Your task to perform on an android device: open sync settings in chrome Image 0: 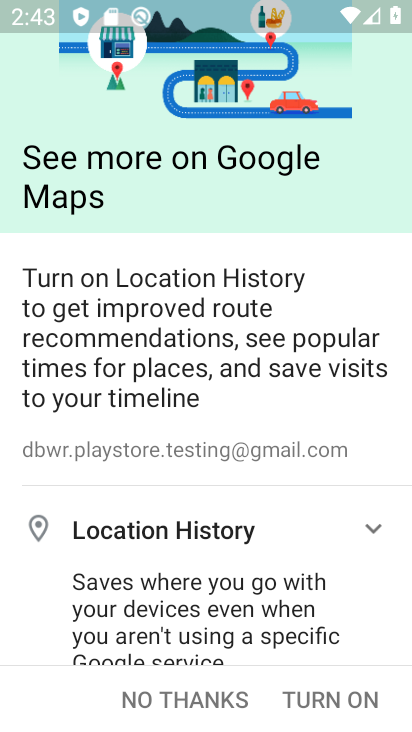
Step 0: press home button
Your task to perform on an android device: open sync settings in chrome Image 1: 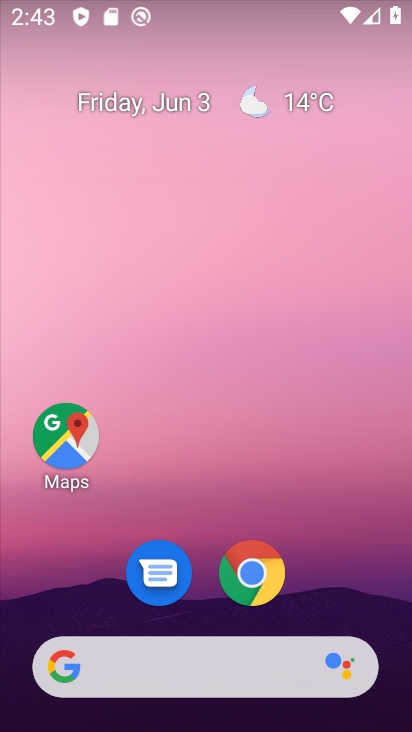
Step 1: drag from (214, 614) to (265, 85)
Your task to perform on an android device: open sync settings in chrome Image 2: 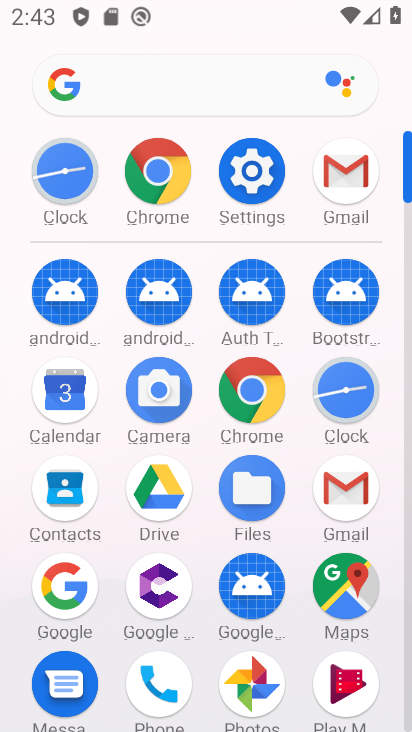
Step 2: click (243, 398)
Your task to perform on an android device: open sync settings in chrome Image 3: 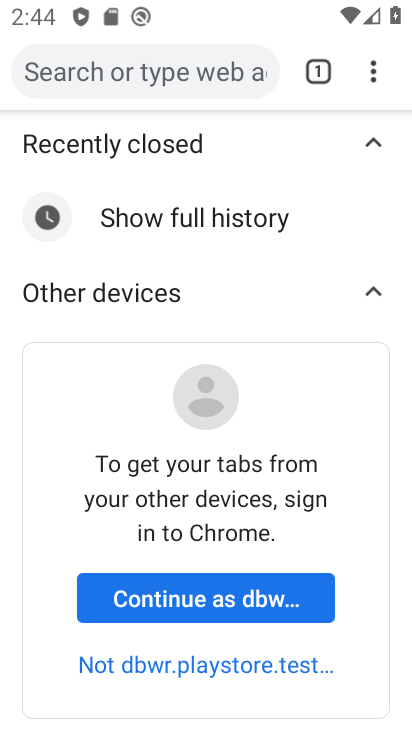
Step 3: drag from (377, 64) to (157, 608)
Your task to perform on an android device: open sync settings in chrome Image 4: 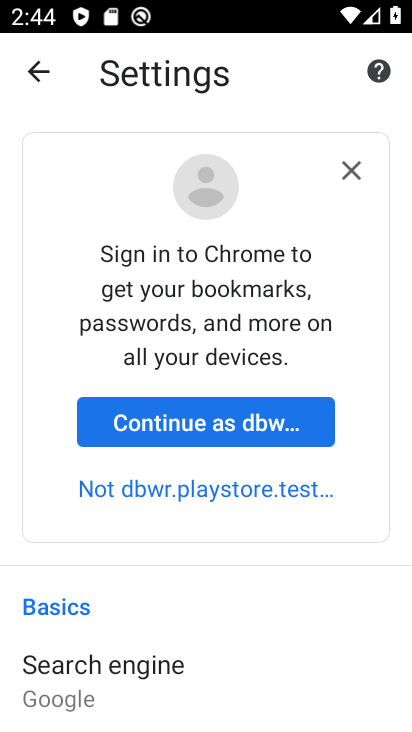
Step 4: drag from (265, 656) to (315, 93)
Your task to perform on an android device: open sync settings in chrome Image 5: 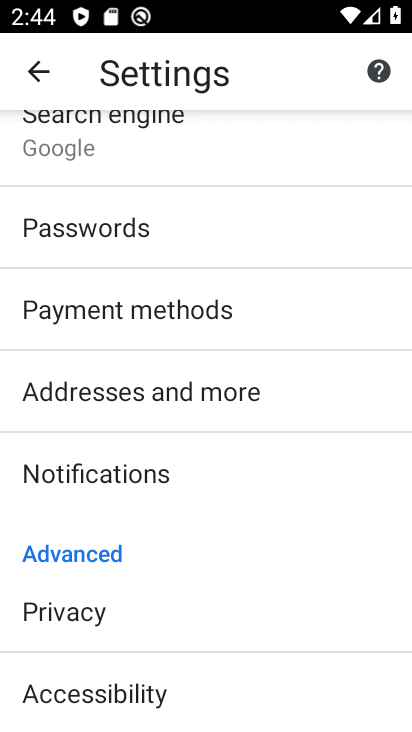
Step 5: drag from (230, 594) to (279, 176)
Your task to perform on an android device: open sync settings in chrome Image 6: 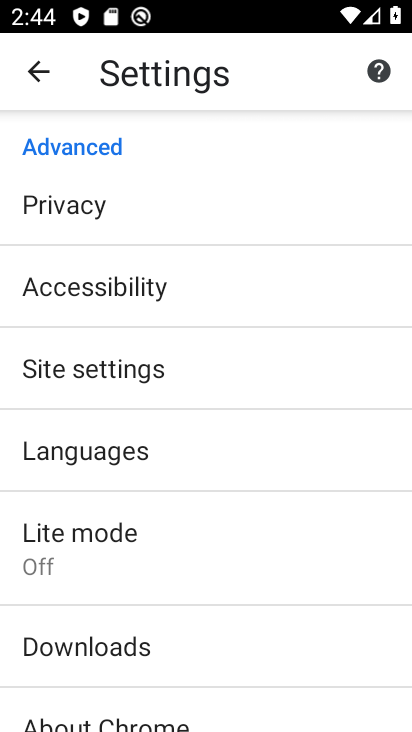
Step 6: click (147, 385)
Your task to perform on an android device: open sync settings in chrome Image 7: 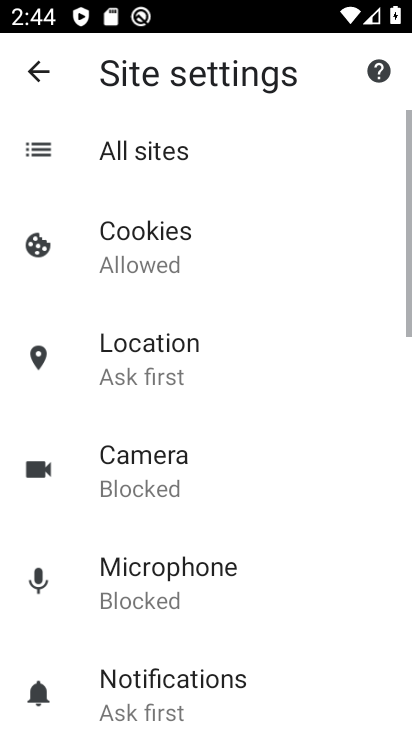
Step 7: drag from (201, 682) to (242, 128)
Your task to perform on an android device: open sync settings in chrome Image 8: 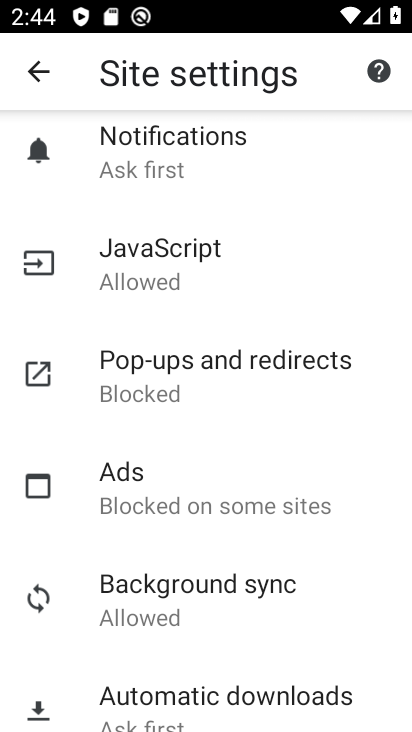
Step 8: click (197, 589)
Your task to perform on an android device: open sync settings in chrome Image 9: 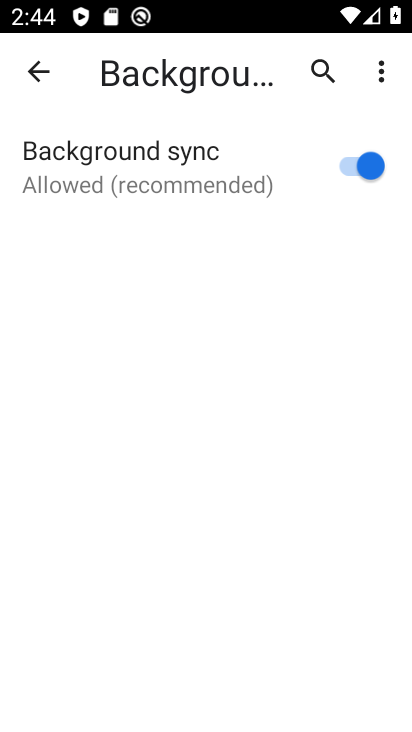
Step 9: task complete